Your task to perform on an android device: turn on the 12-hour format for clock Image 0: 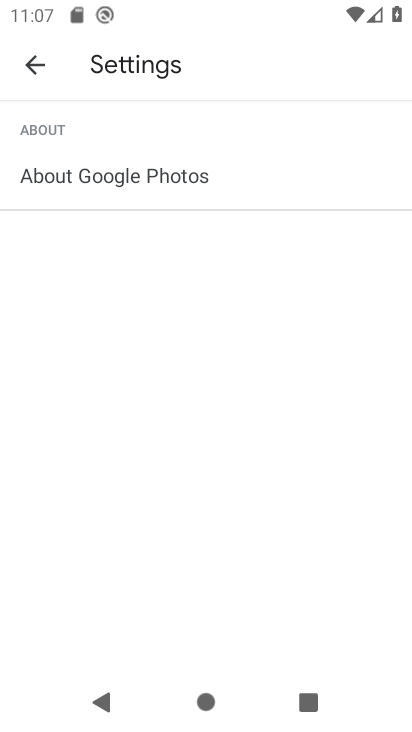
Step 0: press home button
Your task to perform on an android device: turn on the 12-hour format for clock Image 1: 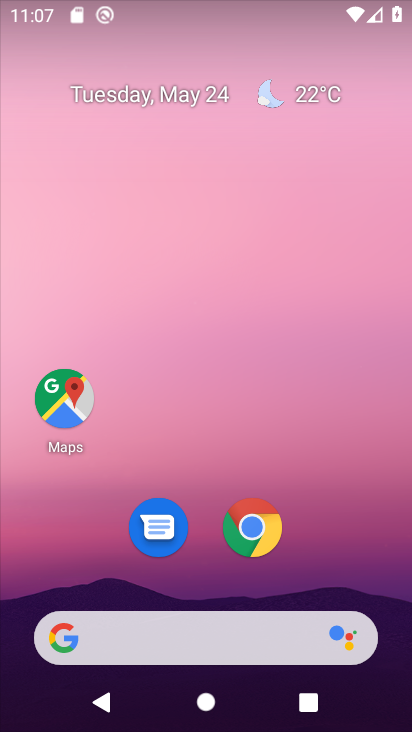
Step 1: drag from (219, 628) to (377, 114)
Your task to perform on an android device: turn on the 12-hour format for clock Image 2: 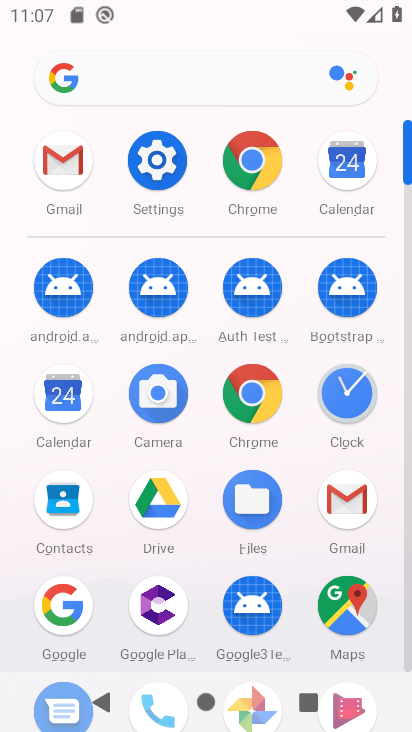
Step 2: click (354, 402)
Your task to perform on an android device: turn on the 12-hour format for clock Image 3: 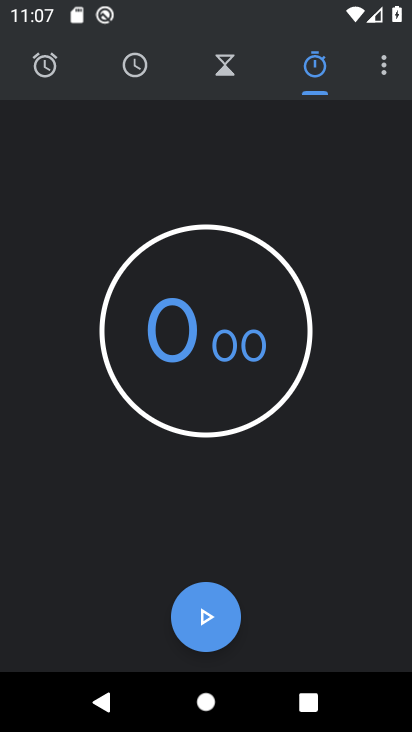
Step 3: click (386, 75)
Your task to perform on an android device: turn on the 12-hour format for clock Image 4: 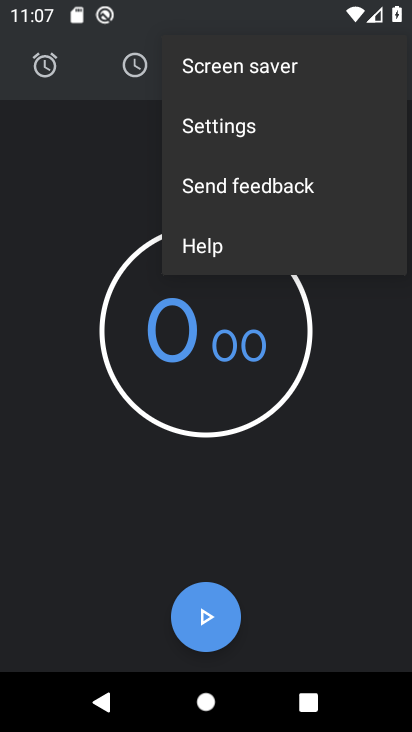
Step 4: click (223, 130)
Your task to perform on an android device: turn on the 12-hour format for clock Image 5: 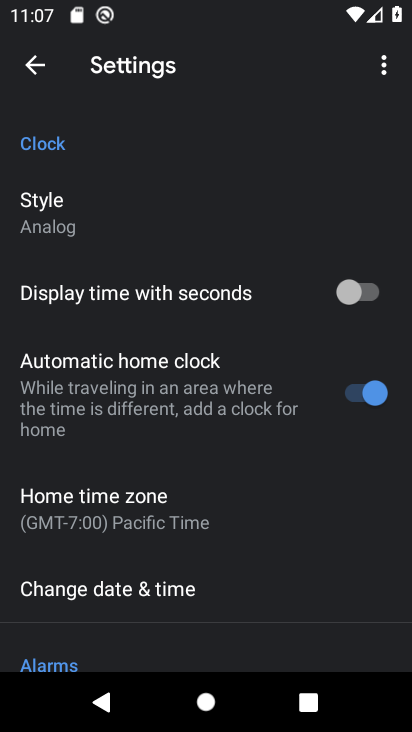
Step 5: drag from (259, 597) to (355, 249)
Your task to perform on an android device: turn on the 12-hour format for clock Image 6: 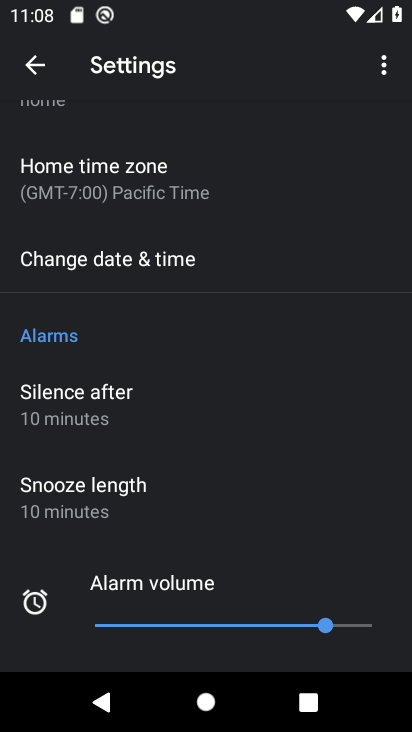
Step 6: click (144, 265)
Your task to perform on an android device: turn on the 12-hour format for clock Image 7: 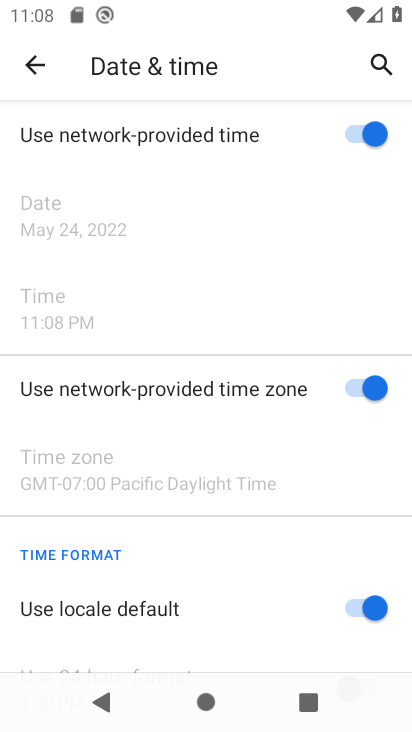
Step 7: task complete